Your task to perform on an android device: set the stopwatch Image 0: 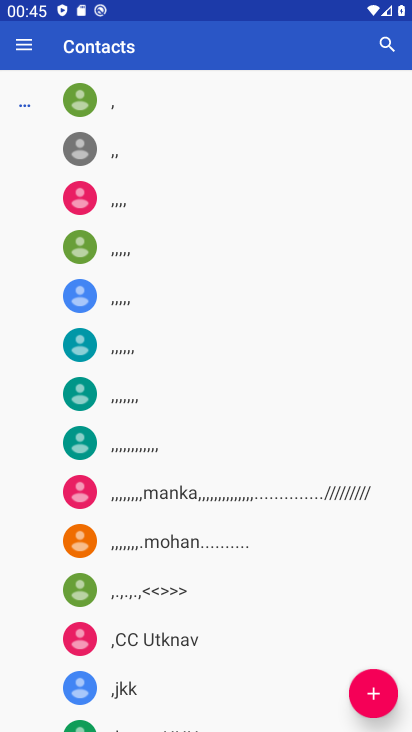
Step 0: press home button
Your task to perform on an android device: set the stopwatch Image 1: 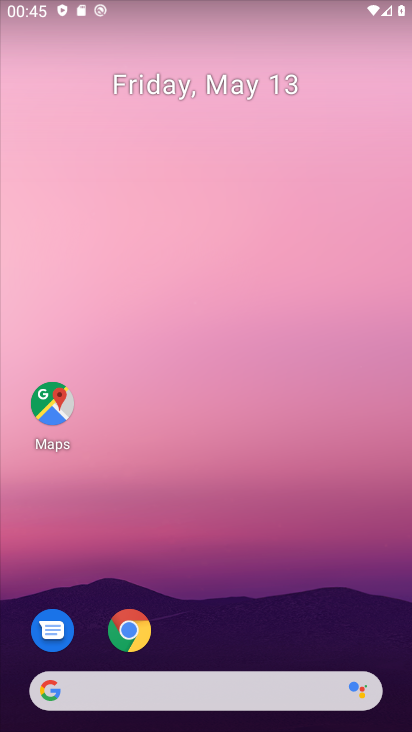
Step 1: drag from (224, 722) to (196, 370)
Your task to perform on an android device: set the stopwatch Image 2: 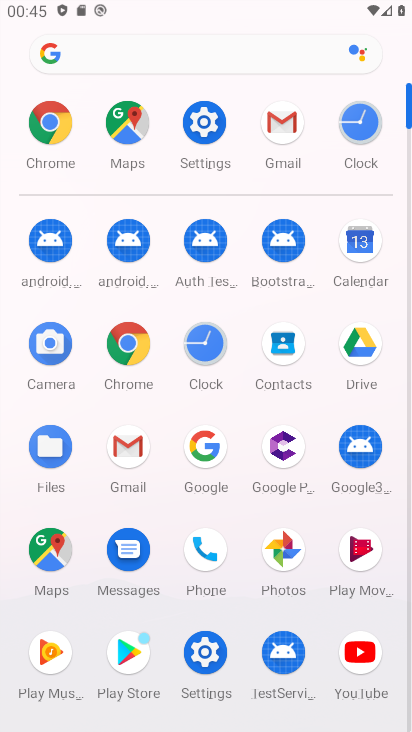
Step 2: click (380, 123)
Your task to perform on an android device: set the stopwatch Image 3: 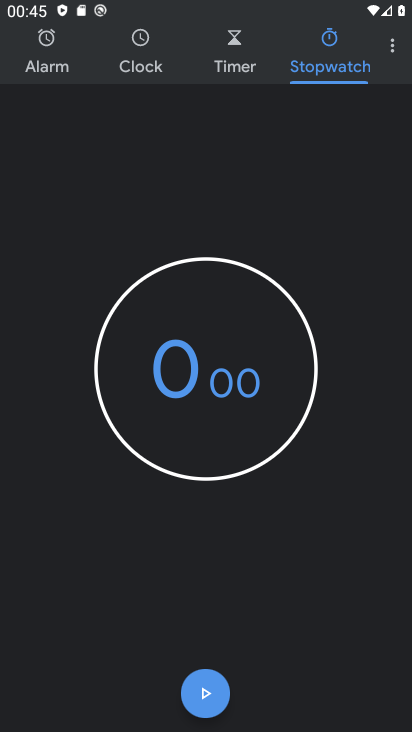
Step 3: task complete